Your task to perform on an android device: turn off notifications settings in the gmail app Image 0: 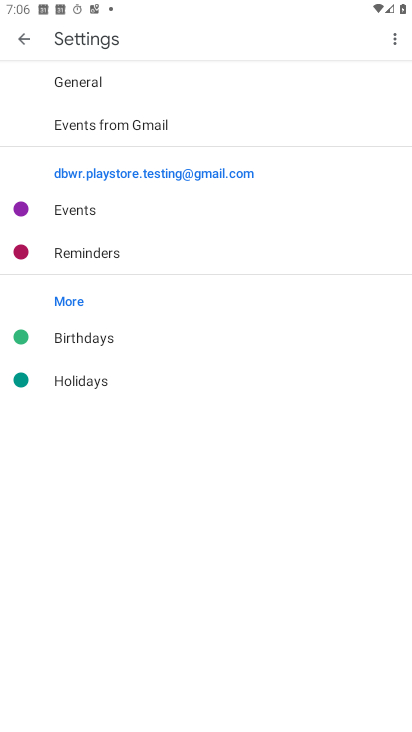
Step 0: press home button
Your task to perform on an android device: turn off notifications settings in the gmail app Image 1: 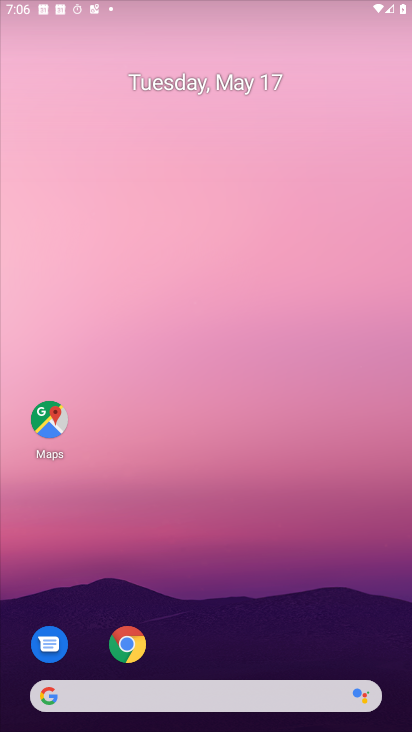
Step 1: drag from (362, 628) to (303, 45)
Your task to perform on an android device: turn off notifications settings in the gmail app Image 2: 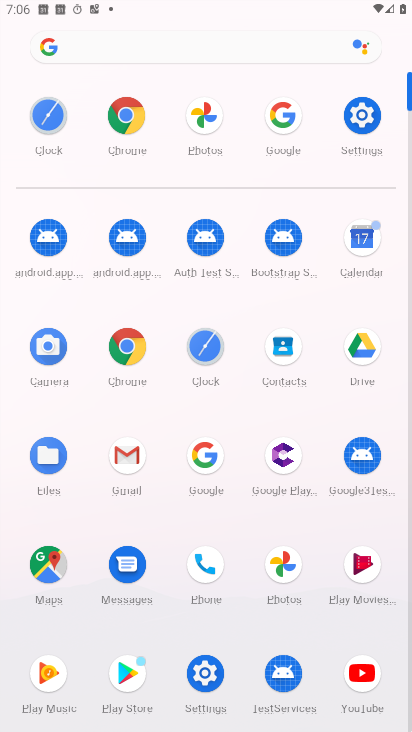
Step 2: click (126, 472)
Your task to perform on an android device: turn off notifications settings in the gmail app Image 3: 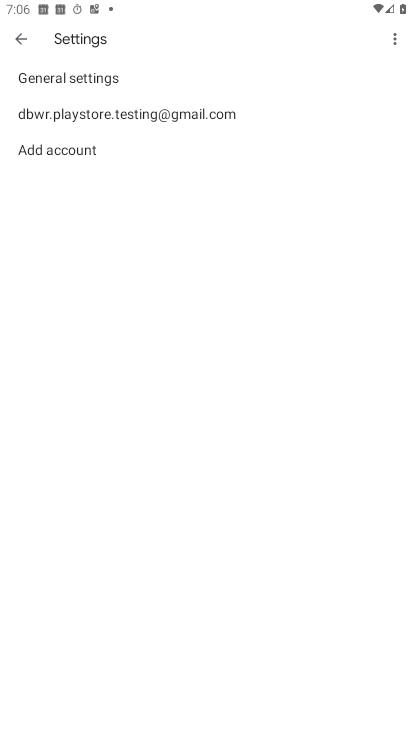
Step 3: click (185, 113)
Your task to perform on an android device: turn off notifications settings in the gmail app Image 4: 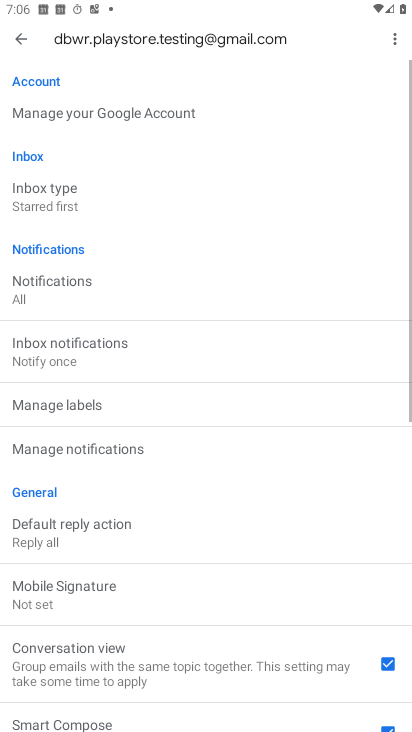
Step 4: click (88, 288)
Your task to perform on an android device: turn off notifications settings in the gmail app Image 5: 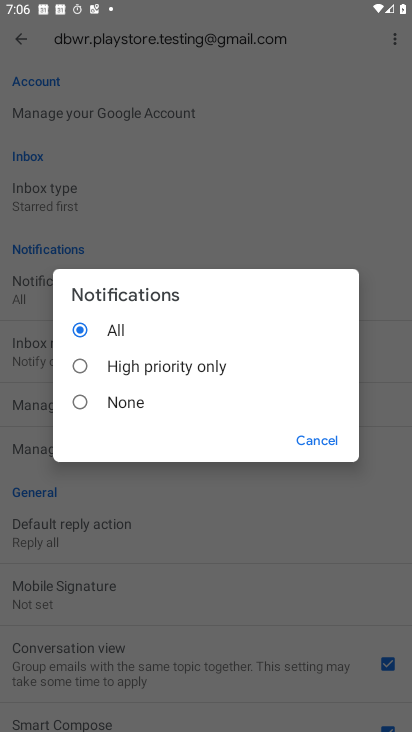
Step 5: click (91, 407)
Your task to perform on an android device: turn off notifications settings in the gmail app Image 6: 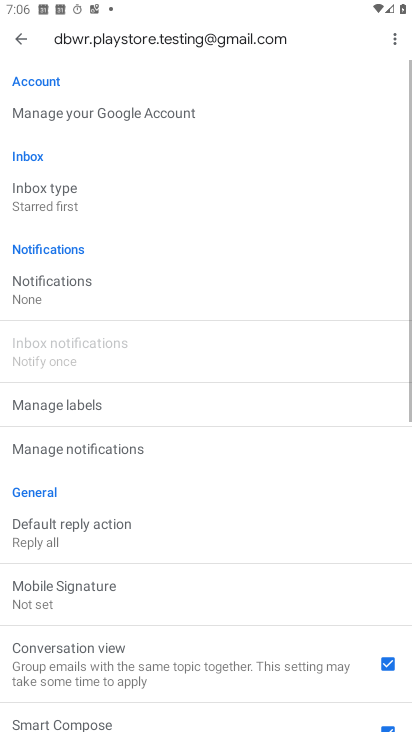
Step 6: click (87, 404)
Your task to perform on an android device: turn off notifications settings in the gmail app Image 7: 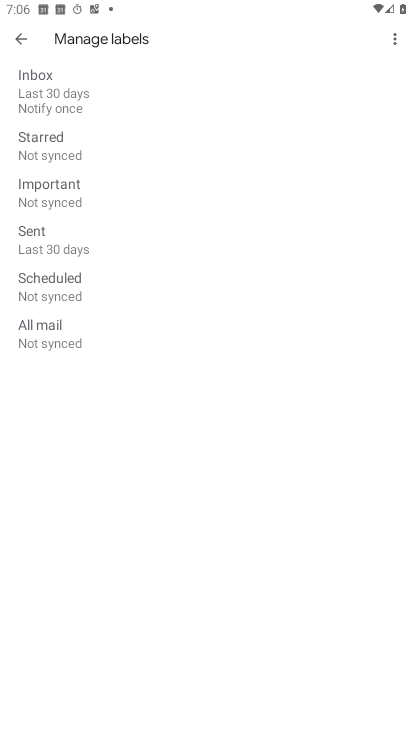
Step 7: task complete